Your task to perform on an android device: toggle javascript in the chrome app Image 0: 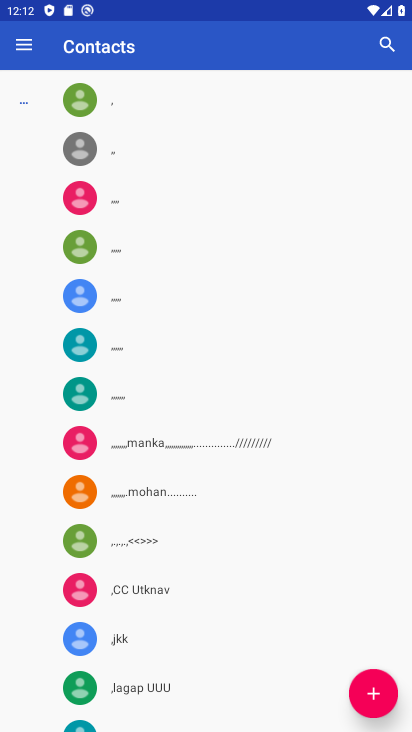
Step 0: press home button
Your task to perform on an android device: toggle javascript in the chrome app Image 1: 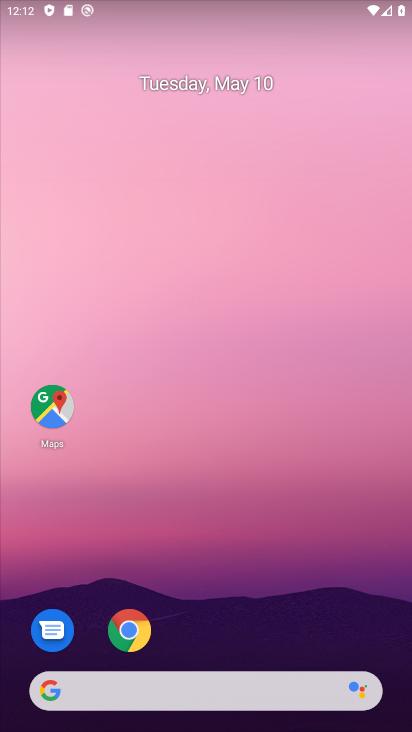
Step 1: click (129, 631)
Your task to perform on an android device: toggle javascript in the chrome app Image 2: 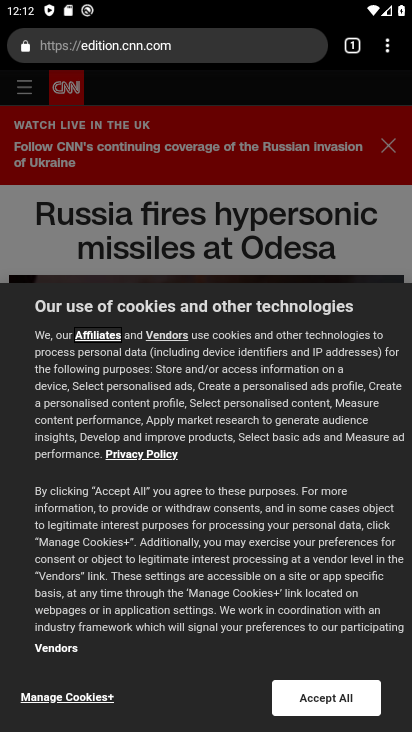
Step 2: click (389, 52)
Your task to perform on an android device: toggle javascript in the chrome app Image 3: 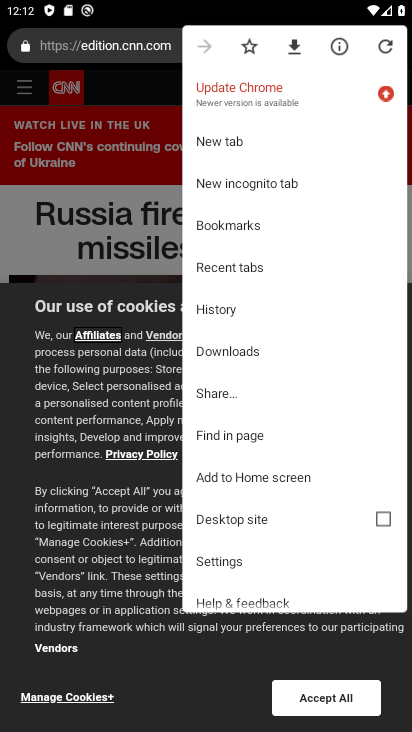
Step 3: click (212, 561)
Your task to perform on an android device: toggle javascript in the chrome app Image 4: 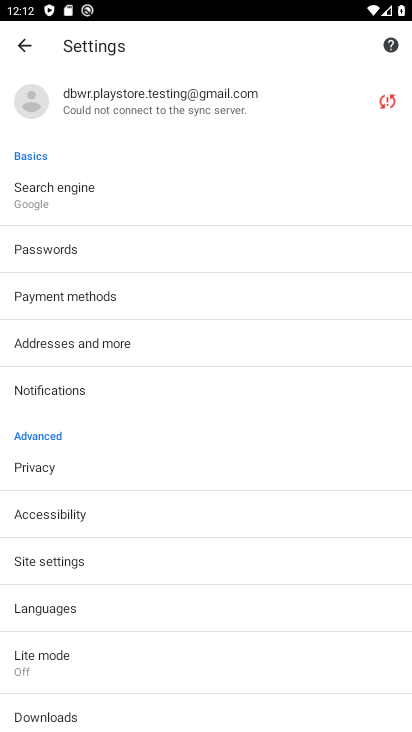
Step 4: click (51, 563)
Your task to perform on an android device: toggle javascript in the chrome app Image 5: 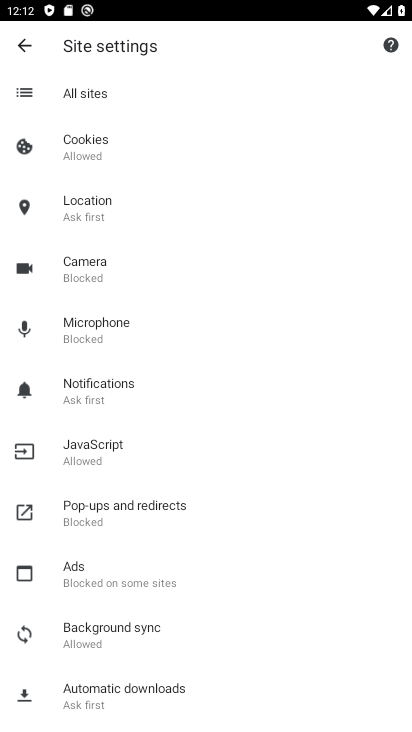
Step 5: click (94, 450)
Your task to perform on an android device: toggle javascript in the chrome app Image 6: 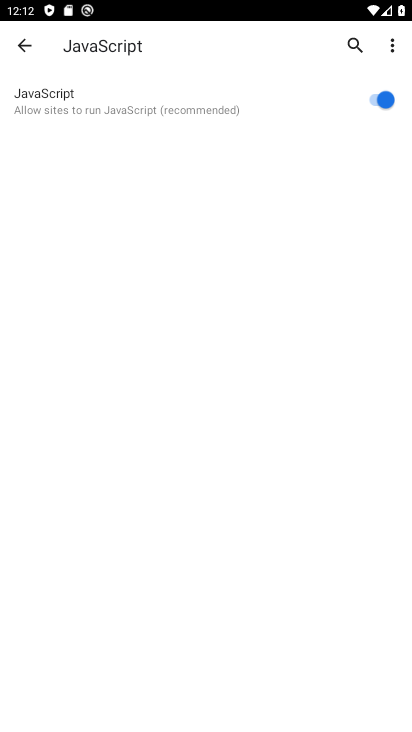
Step 6: click (375, 96)
Your task to perform on an android device: toggle javascript in the chrome app Image 7: 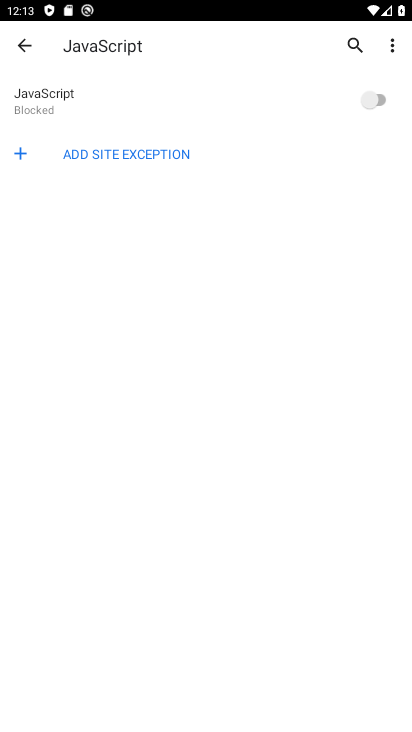
Step 7: task complete